Your task to perform on an android device: Open the stopwatch Image 0: 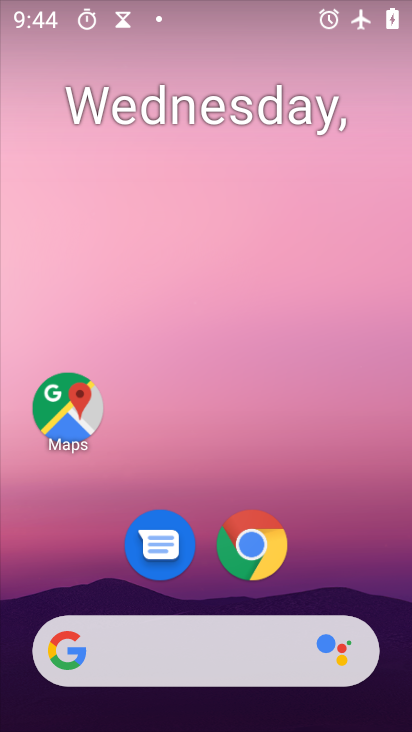
Step 0: drag from (209, 646) to (410, 85)
Your task to perform on an android device: Open the stopwatch Image 1: 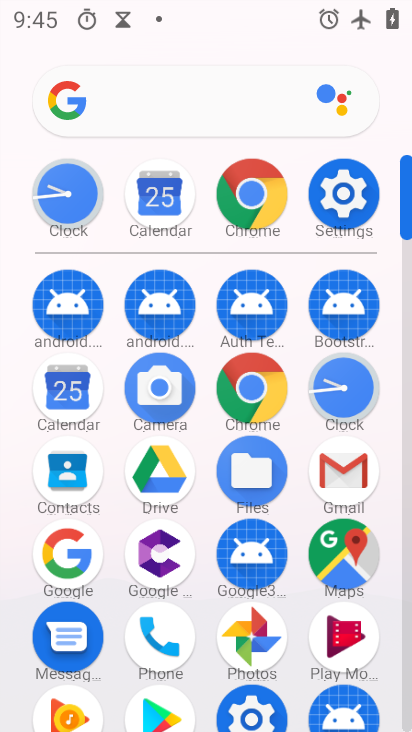
Step 1: click (342, 395)
Your task to perform on an android device: Open the stopwatch Image 2: 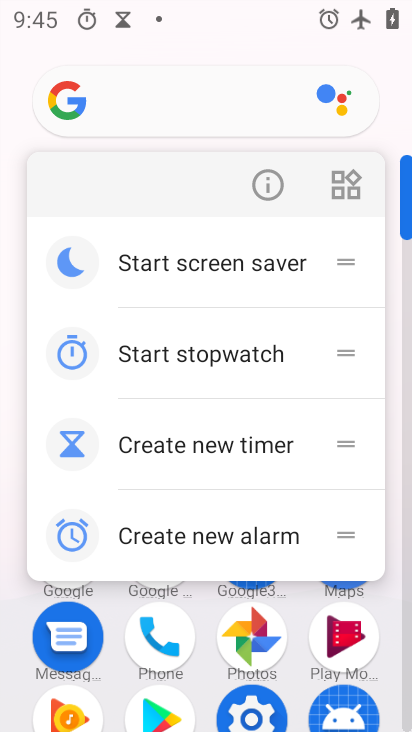
Step 2: press back button
Your task to perform on an android device: Open the stopwatch Image 3: 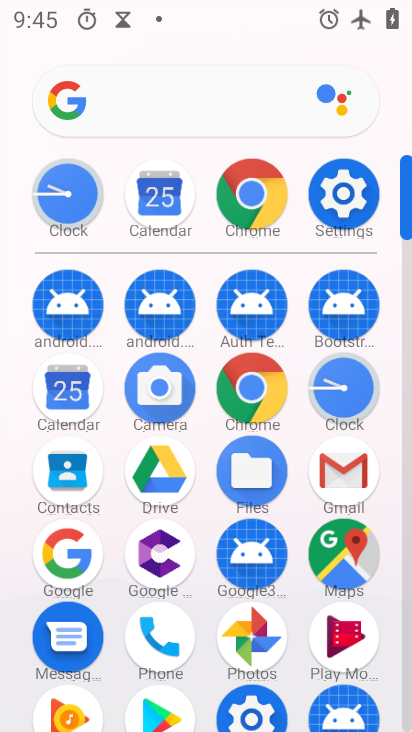
Step 3: click (344, 404)
Your task to perform on an android device: Open the stopwatch Image 4: 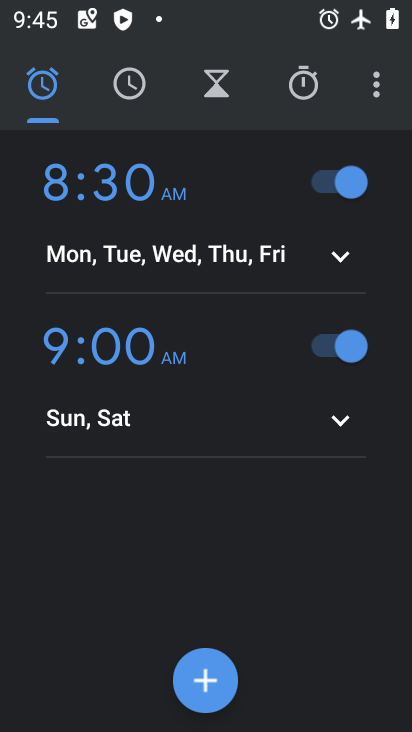
Step 4: click (296, 99)
Your task to perform on an android device: Open the stopwatch Image 5: 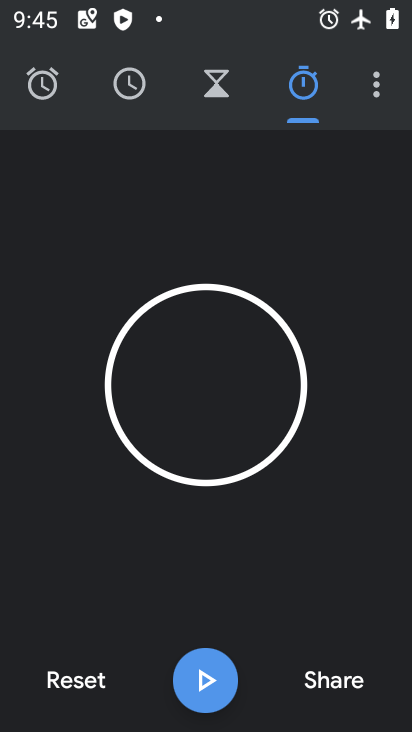
Step 5: task complete